Your task to perform on an android device: open device folders in google photos Image 0: 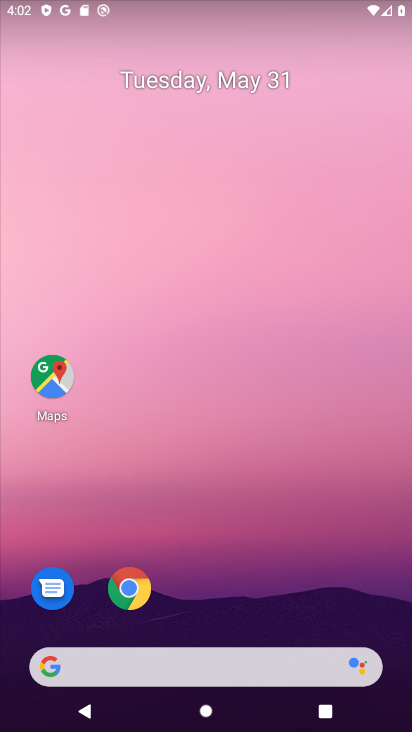
Step 0: drag from (171, 618) to (179, 56)
Your task to perform on an android device: open device folders in google photos Image 1: 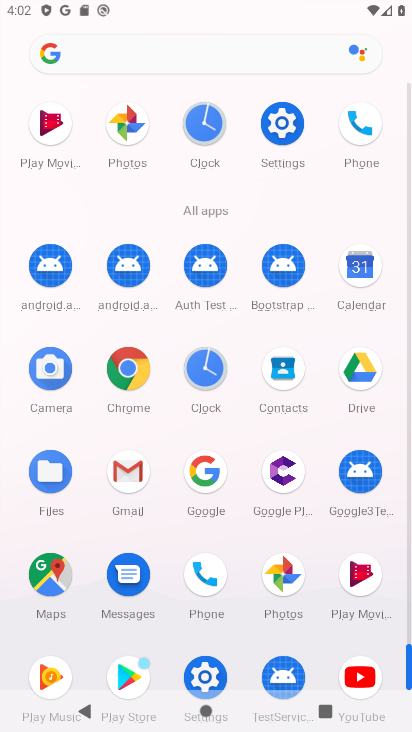
Step 1: click (132, 118)
Your task to perform on an android device: open device folders in google photos Image 2: 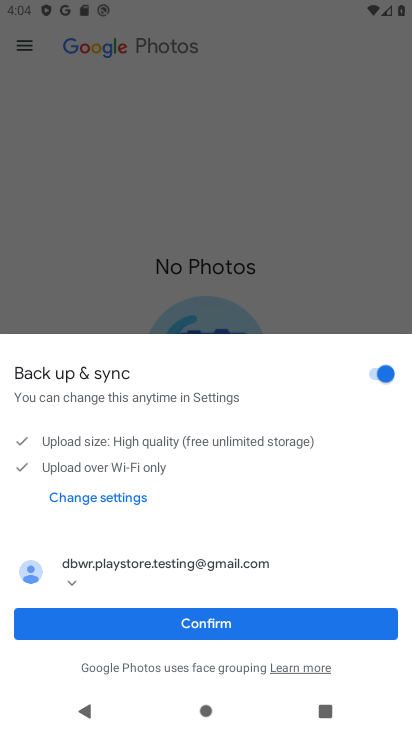
Step 2: click (150, 616)
Your task to perform on an android device: open device folders in google photos Image 3: 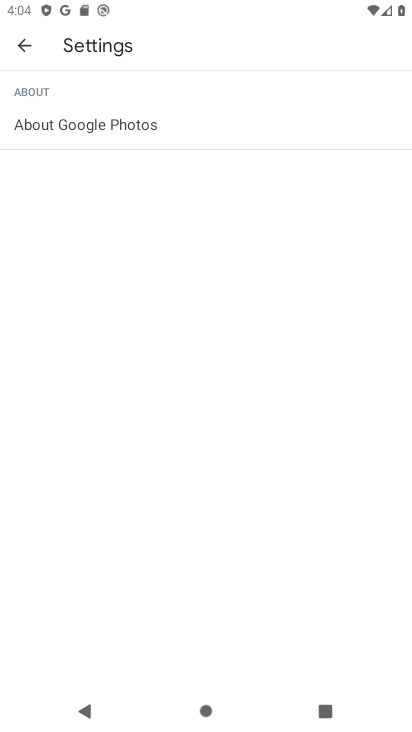
Step 3: task complete